Your task to perform on an android device: How big is a lion? Image 0: 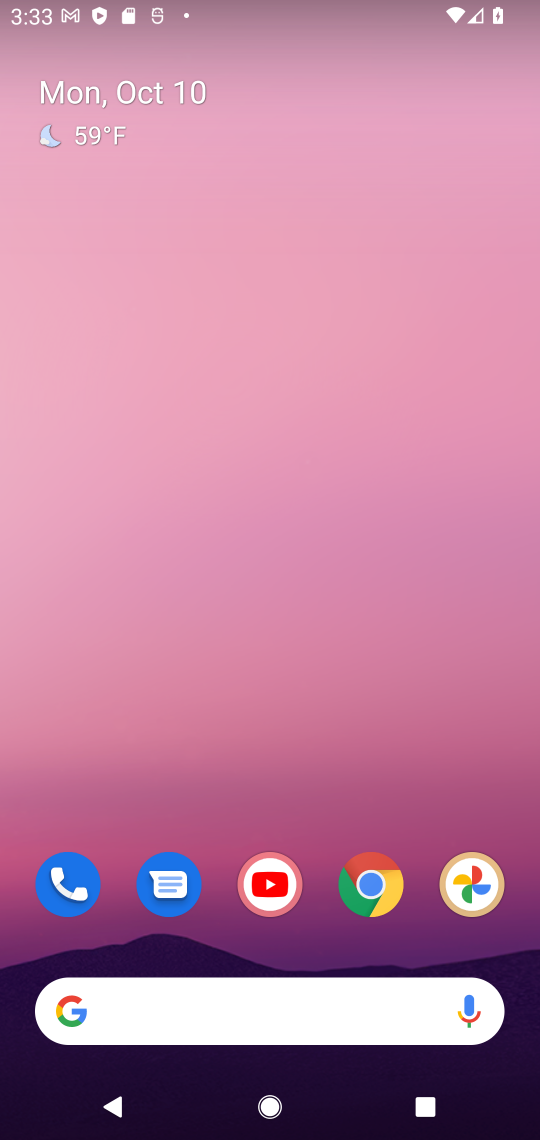
Step 0: click (373, 888)
Your task to perform on an android device: How big is a lion? Image 1: 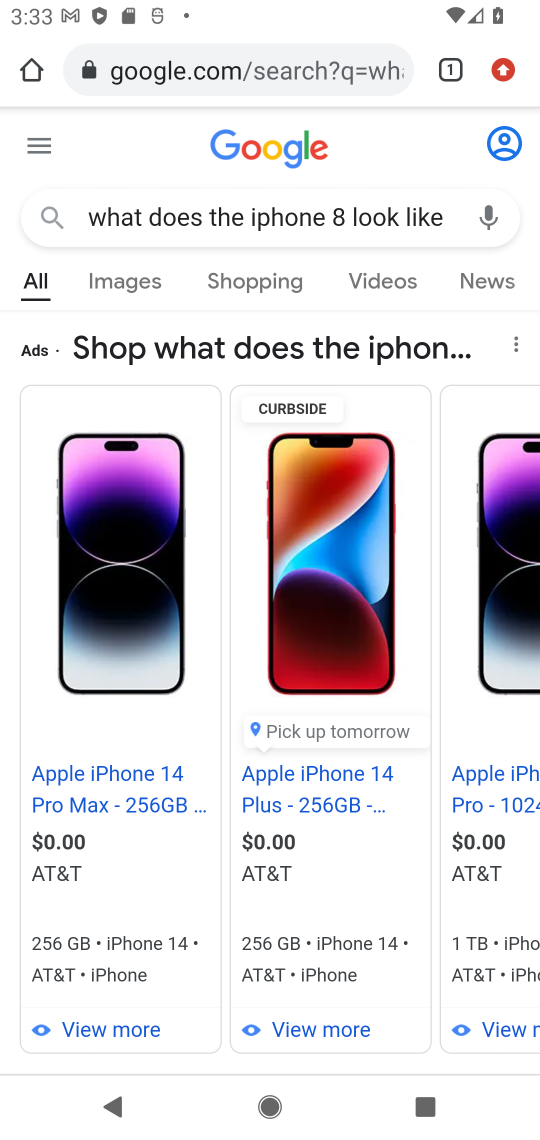
Step 1: click (259, 69)
Your task to perform on an android device: How big is a lion? Image 2: 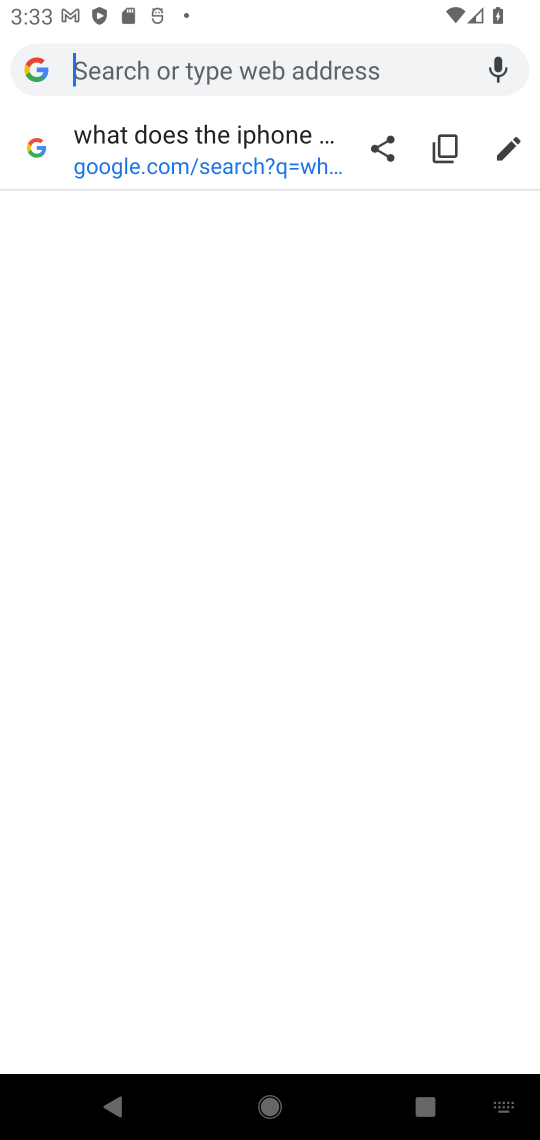
Step 2: type "How big is a lion?"
Your task to perform on an android device: How big is a lion? Image 3: 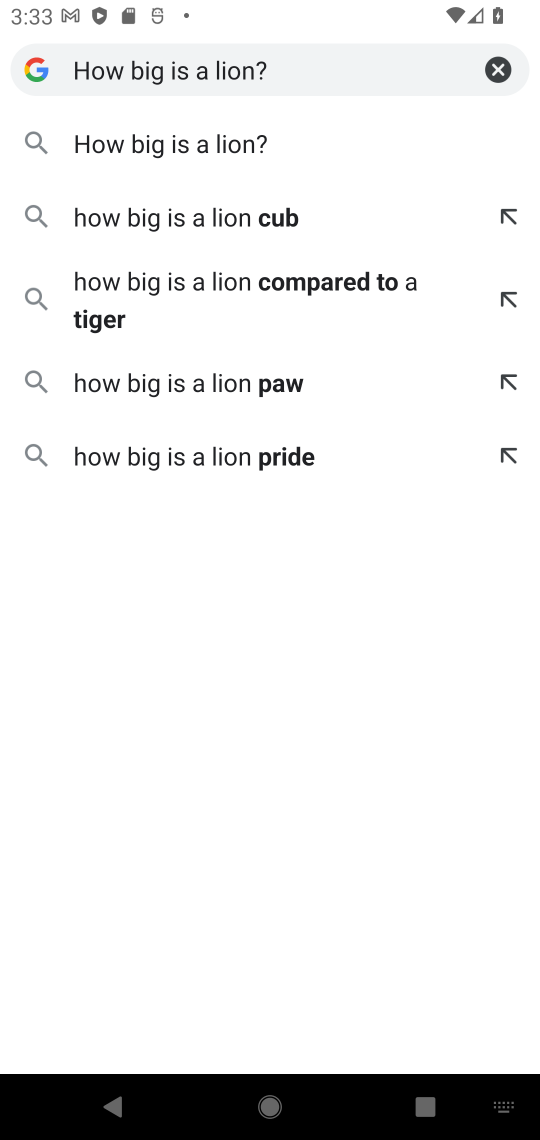
Step 3: click (166, 151)
Your task to perform on an android device: How big is a lion? Image 4: 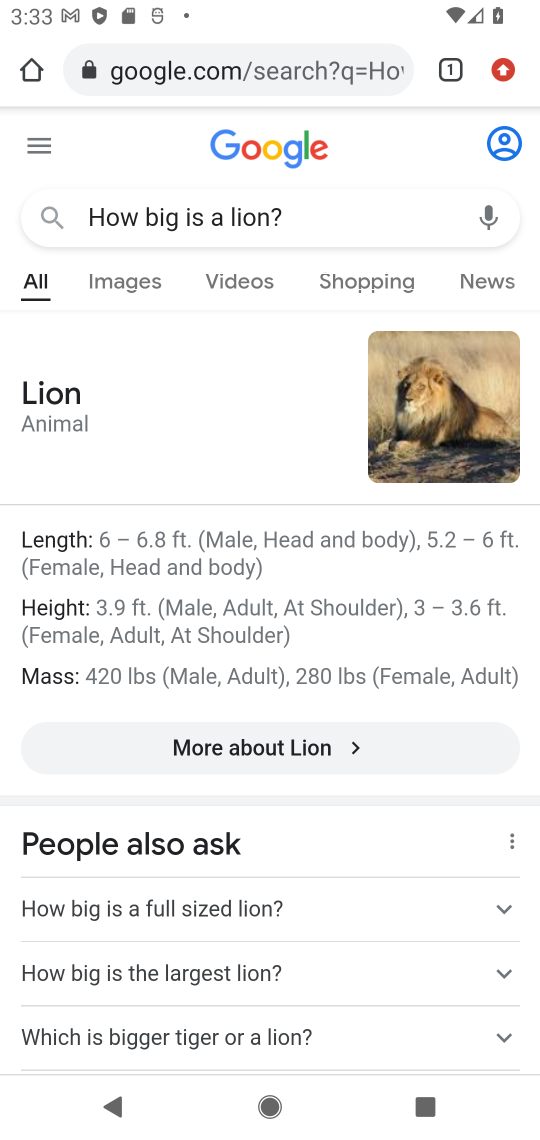
Step 4: task complete